Your task to perform on an android device: What's the weather going to be this weekend? Image 0: 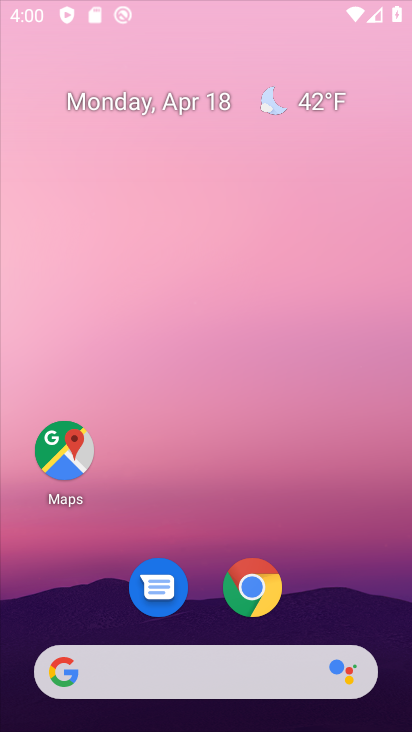
Step 0: click (226, 134)
Your task to perform on an android device: What's the weather going to be this weekend? Image 1: 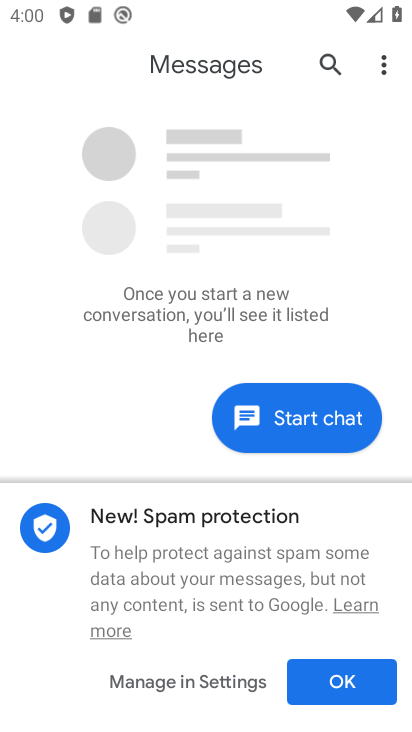
Step 1: press back button
Your task to perform on an android device: What's the weather going to be this weekend? Image 2: 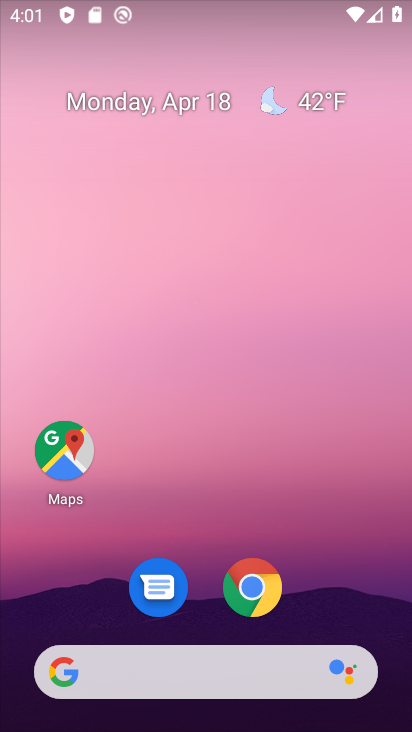
Step 2: drag from (158, 314) to (373, 301)
Your task to perform on an android device: What's the weather going to be this weekend? Image 3: 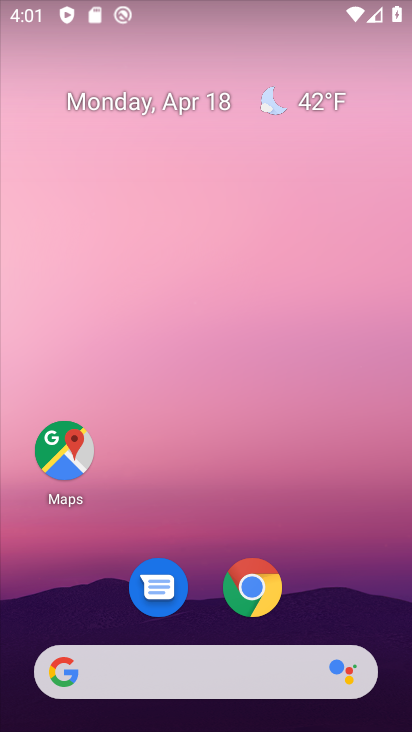
Step 3: drag from (41, 343) to (388, 315)
Your task to perform on an android device: What's the weather going to be this weekend? Image 4: 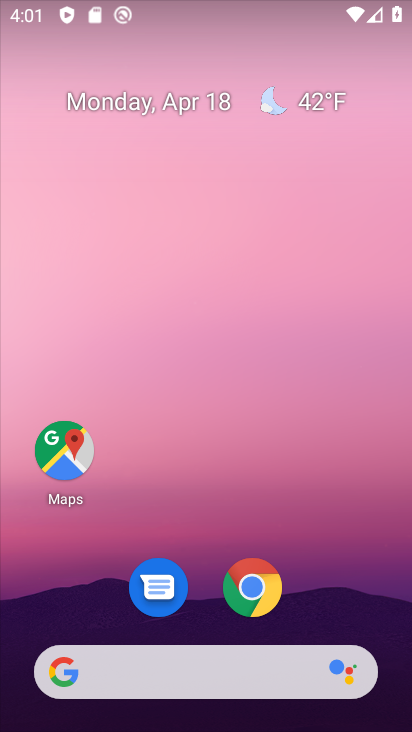
Step 4: drag from (23, 341) to (410, 321)
Your task to perform on an android device: What's the weather going to be this weekend? Image 5: 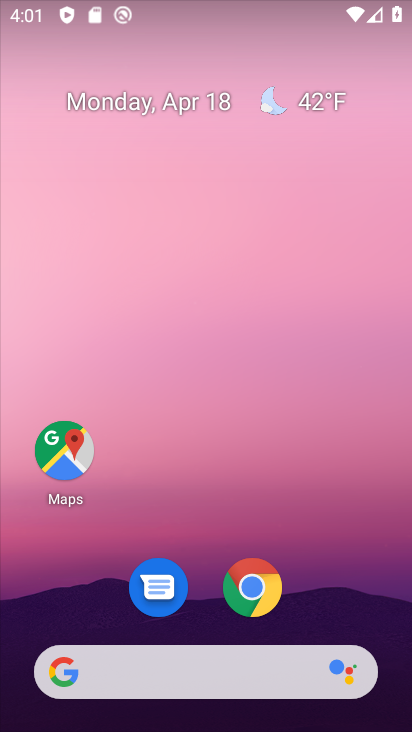
Step 5: drag from (62, 347) to (411, 322)
Your task to perform on an android device: What's the weather going to be this weekend? Image 6: 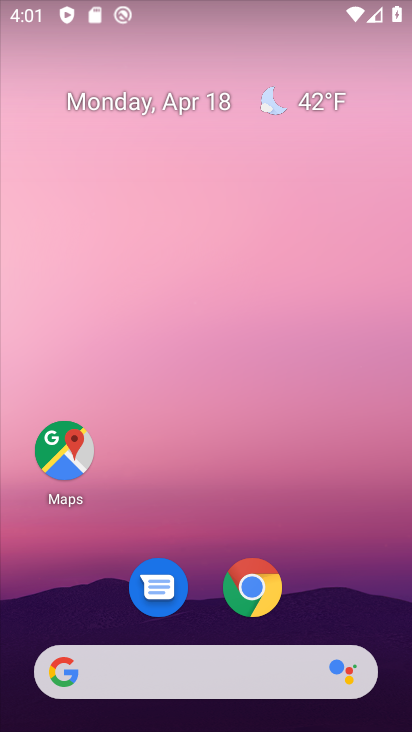
Step 6: drag from (6, 345) to (257, 303)
Your task to perform on an android device: What's the weather going to be this weekend? Image 7: 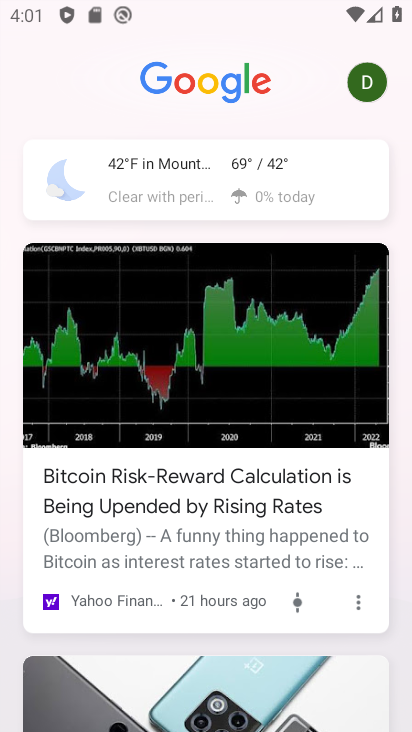
Step 7: click (310, 198)
Your task to perform on an android device: What's the weather going to be this weekend? Image 8: 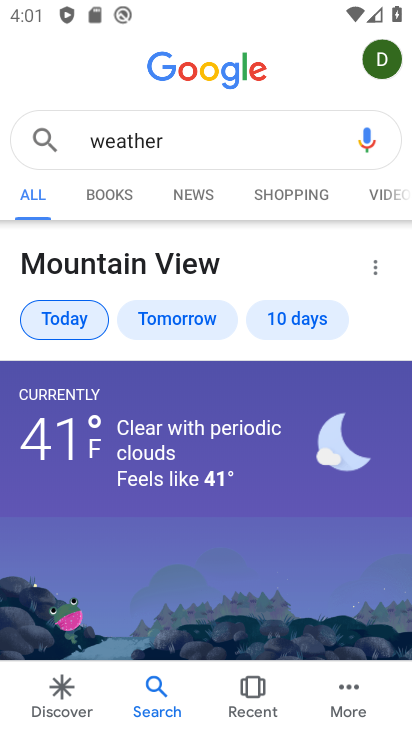
Step 8: click (298, 327)
Your task to perform on an android device: What's the weather going to be this weekend? Image 9: 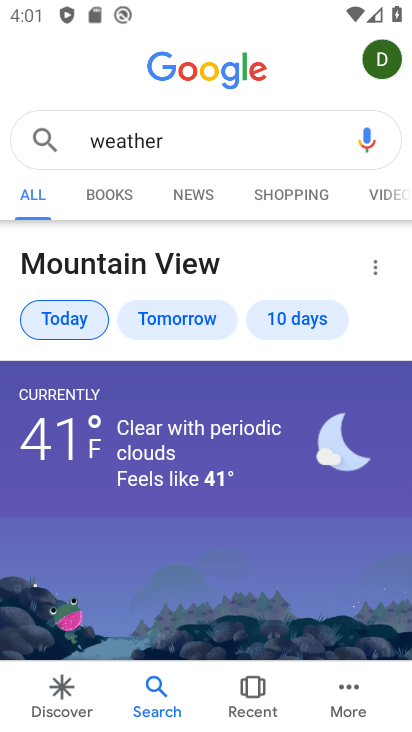
Step 9: click (334, 325)
Your task to perform on an android device: What's the weather going to be this weekend? Image 10: 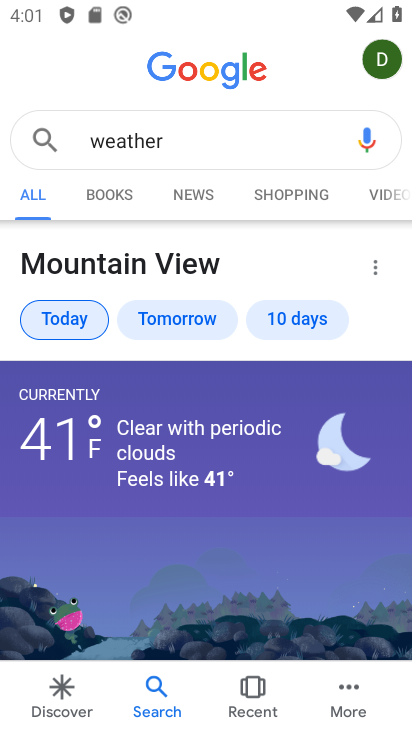
Step 10: drag from (250, 606) to (304, 403)
Your task to perform on an android device: What's the weather going to be this weekend? Image 11: 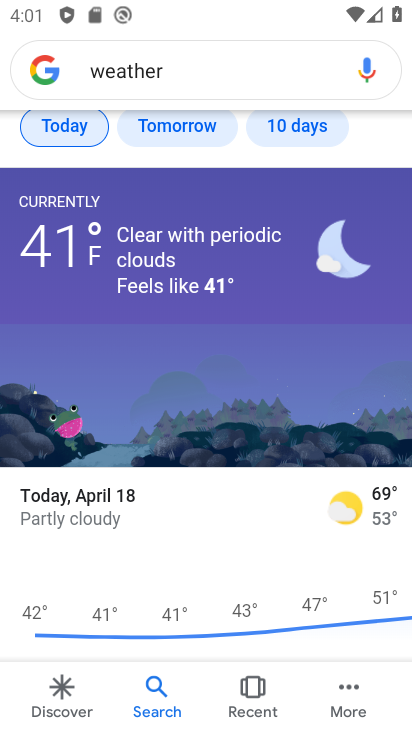
Step 11: click (300, 141)
Your task to perform on an android device: What's the weather going to be this weekend? Image 12: 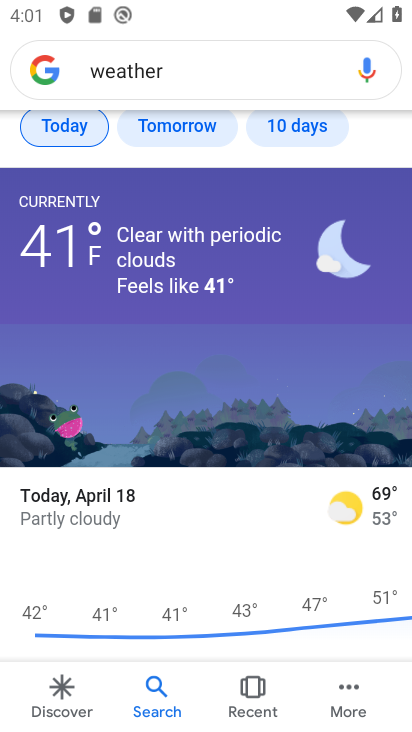
Step 12: click (300, 141)
Your task to perform on an android device: What's the weather going to be this weekend? Image 13: 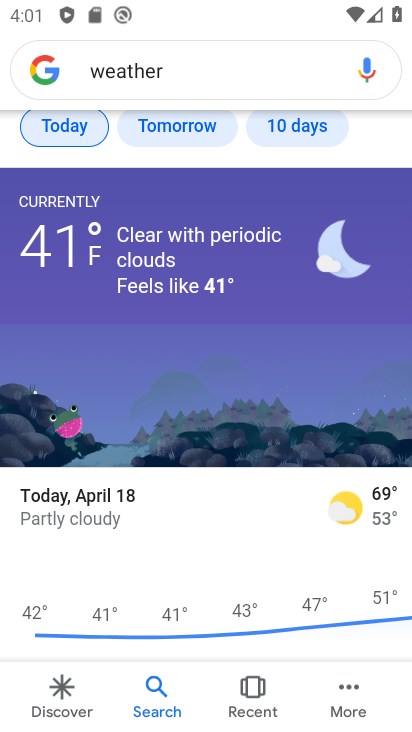
Step 13: click (280, 139)
Your task to perform on an android device: What's the weather going to be this weekend? Image 14: 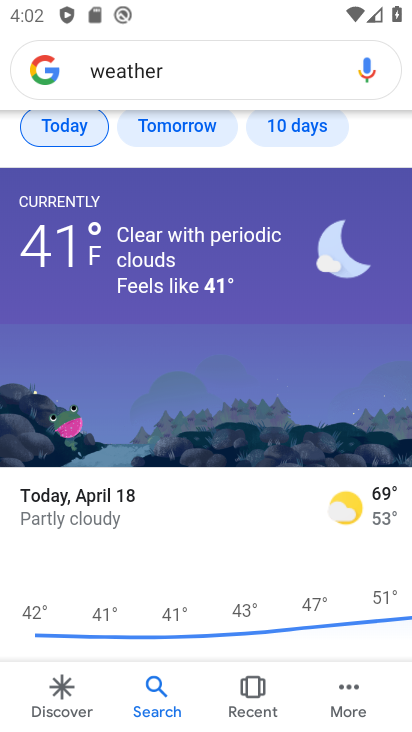
Step 14: click (307, 135)
Your task to perform on an android device: What's the weather going to be this weekend? Image 15: 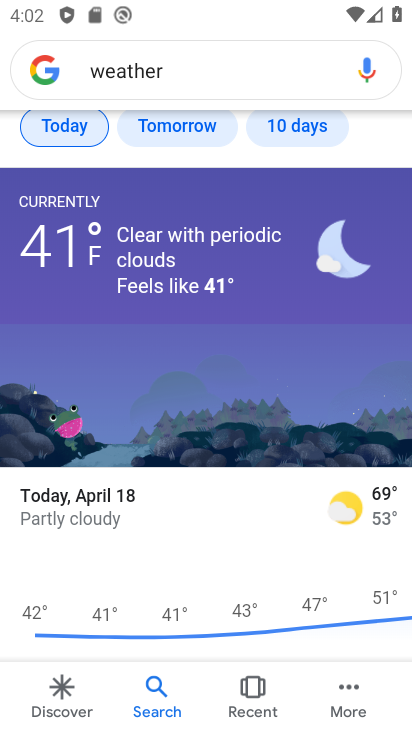
Step 15: click (292, 128)
Your task to perform on an android device: What's the weather going to be this weekend? Image 16: 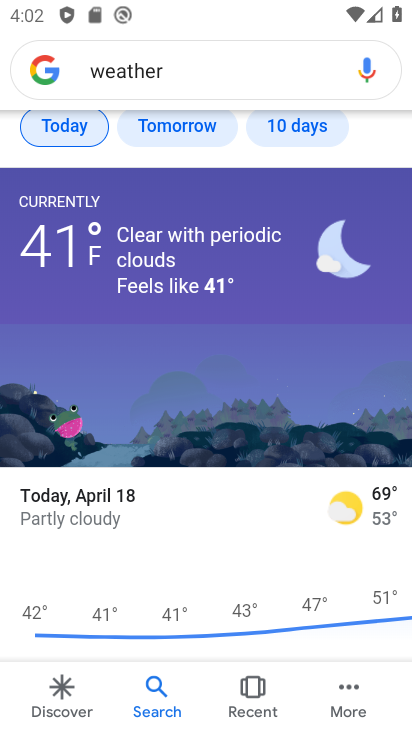
Step 16: click (292, 128)
Your task to perform on an android device: What's the weather going to be this weekend? Image 17: 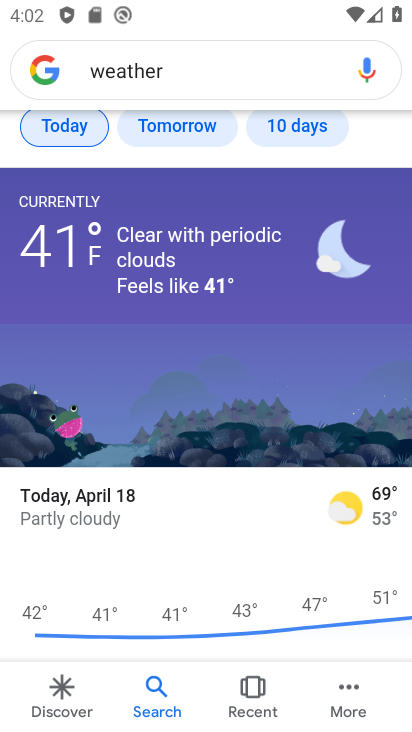
Step 17: click (292, 128)
Your task to perform on an android device: What's the weather going to be this weekend? Image 18: 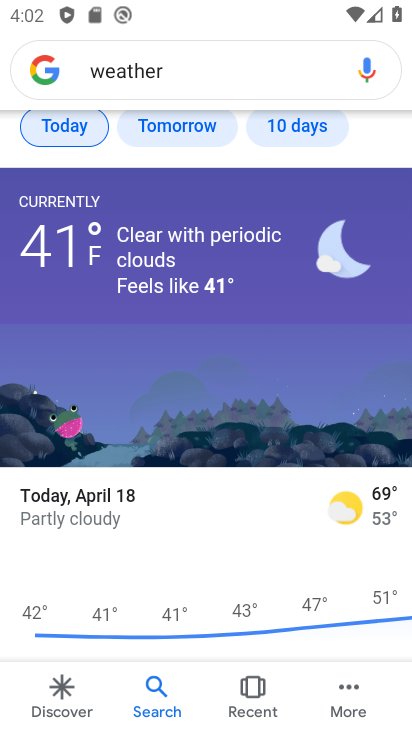
Step 18: click (292, 128)
Your task to perform on an android device: What's the weather going to be this weekend? Image 19: 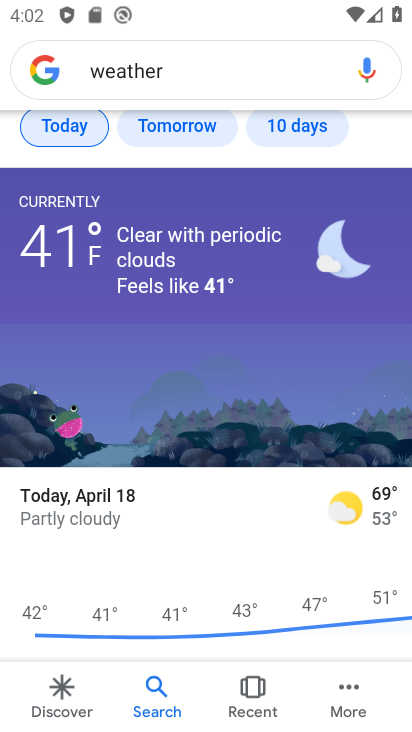
Step 19: click (298, 143)
Your task to perform on an android device: What's the weather going to be this weekend? Image 20: 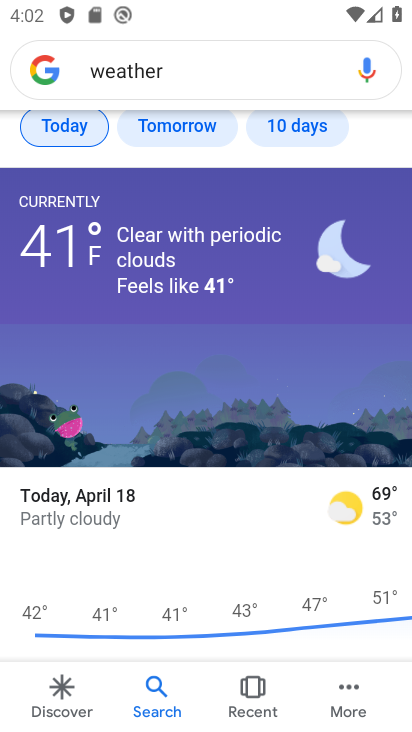
Step 20: drag from (237, 457) to (282, 249)
Your task to perform on an android device: What's the weather going to be this weekend? Image 21: 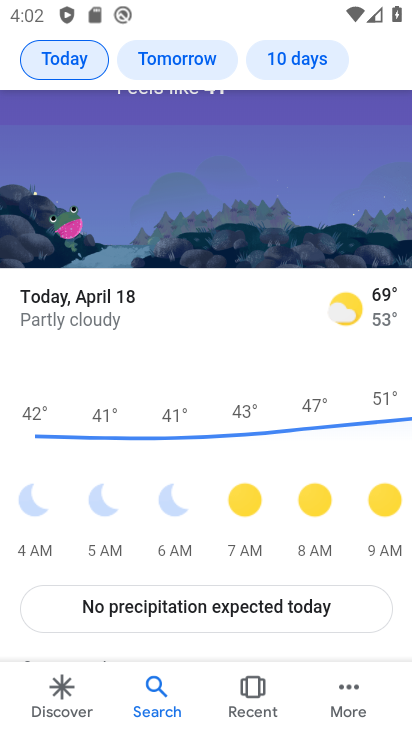
Step 21: click (287, 60)
Your task to perform on an android device: What's the weather going to be this weekend? Image 22: 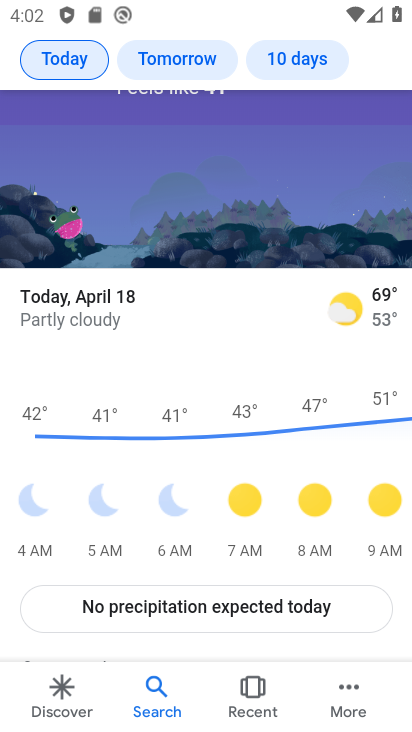
Step 22: click (301, 68)
Your task to perform on an android device: What's the weather going to be this weekend? Image 23: 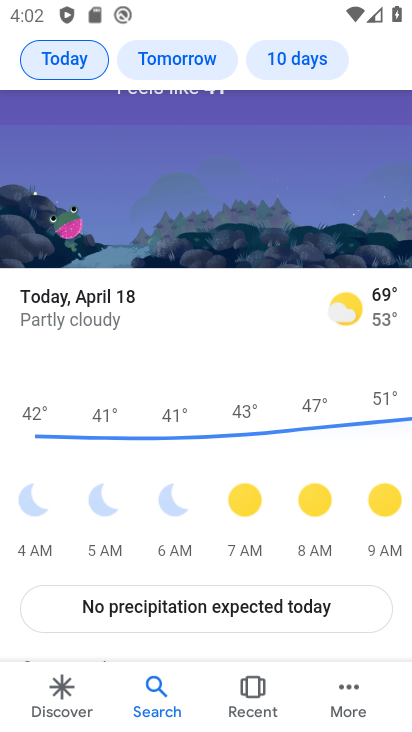
Step 23: click (289, 174)
Your task to perform on an android device: What's the weather going to be this weekend? Image 24: 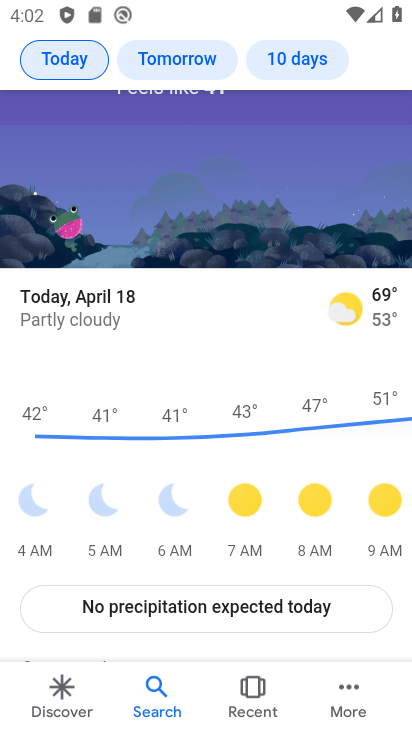
Step 24: click (324, 289)
Your task to perform on an android device: What's the weather going to be this weekend? Image 25: 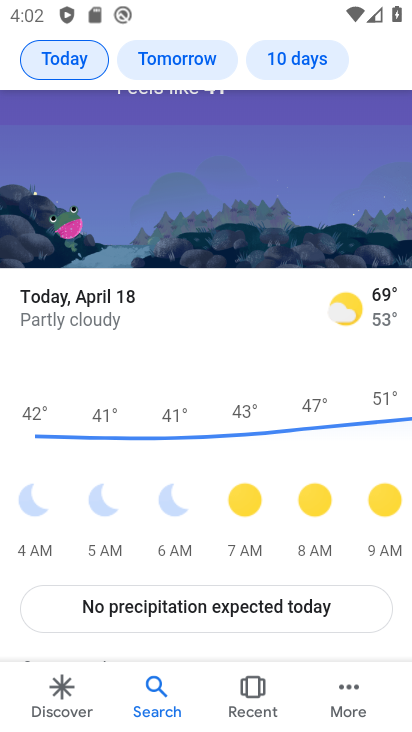
Step 25: click (324, 289)
Your task to perform on an android device: What's the weather going to be this weekend? Image 26: 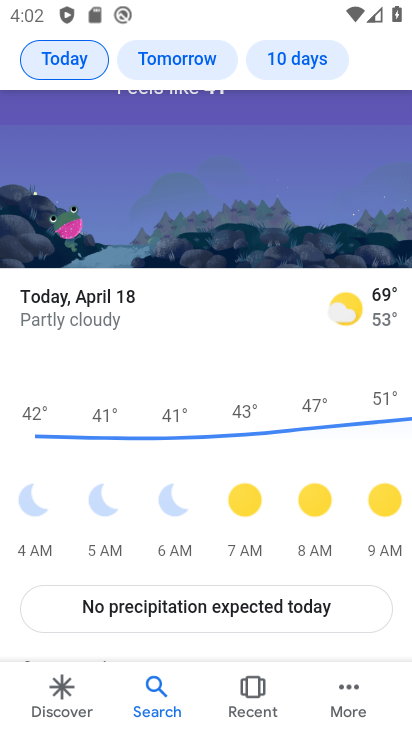
Step 26: click (317, 374)
Your task to perform on an android device: What's the weather going to be this weekend? Image 27: 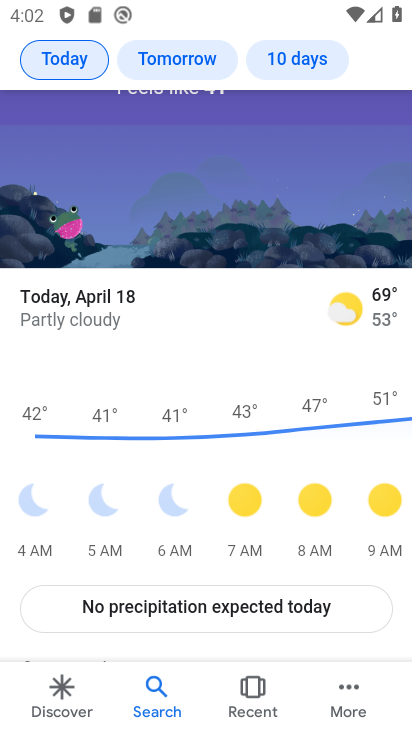
Step 27: click (317, 374)
Your task to perform on an android device: What's the weather going to be this weekend? Image 28: 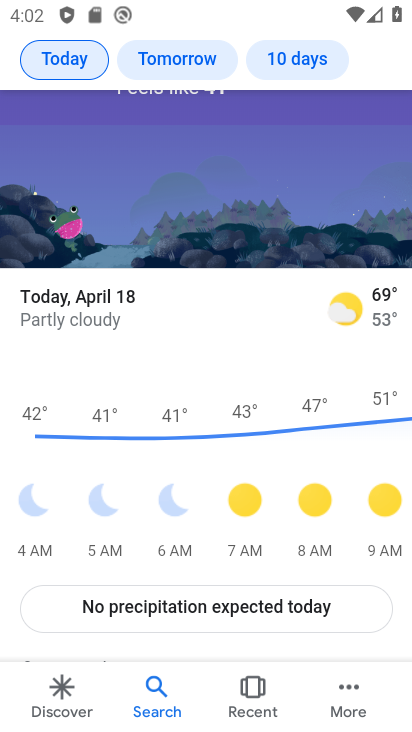
Step 28: click (301, 59)
Your task to perform on an android device: What's the weather going to be this weekend? Image 29: 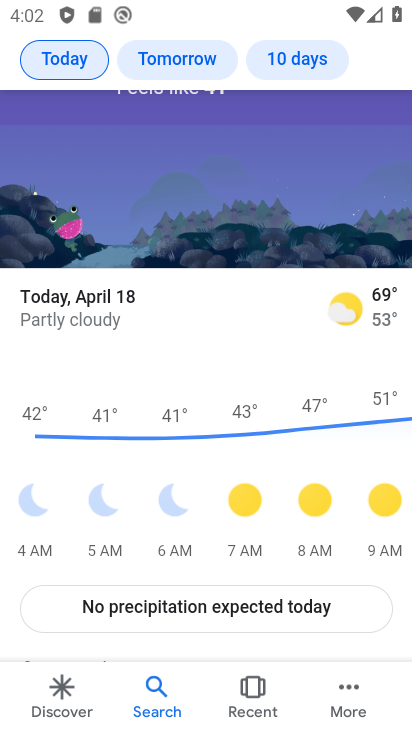
Step 29: click (300, 60)
Your task to perform on an android device: What's the weather going to be this weekend? Image 30: 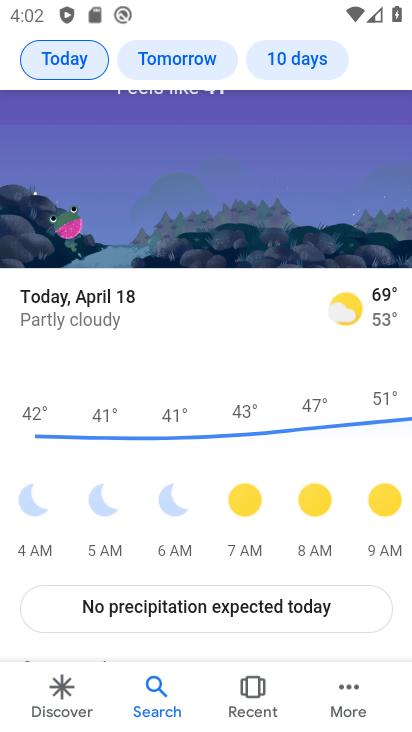
Step 30: click (300, 60)
Your task to perform on an android device: What's the weather going to be this weekend? Image 31: 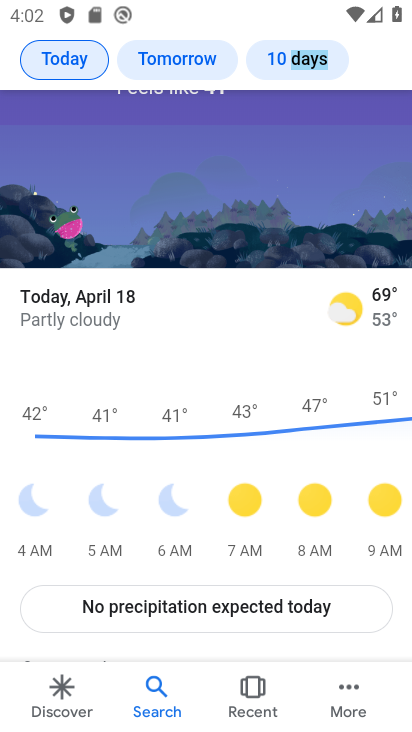
Step 31: click (290, 621)
Your task to perform on an android device: What's the weather going to be this weekend? Image 32: 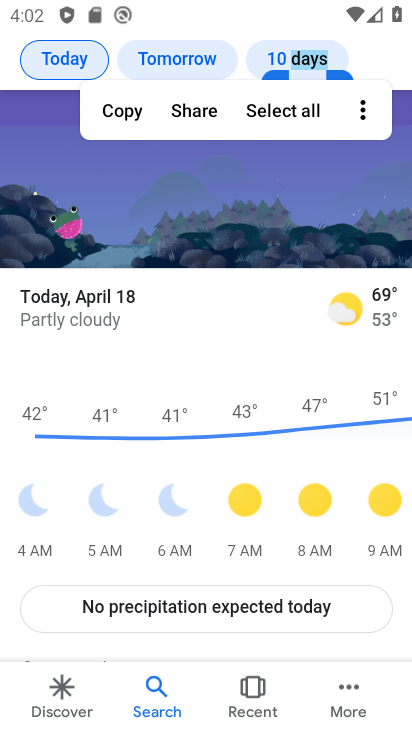
Step 32: drag from (268, 603) to (398, 217)
Your task to perform on an android device: What's the weather going to be this weekend? Image 33: 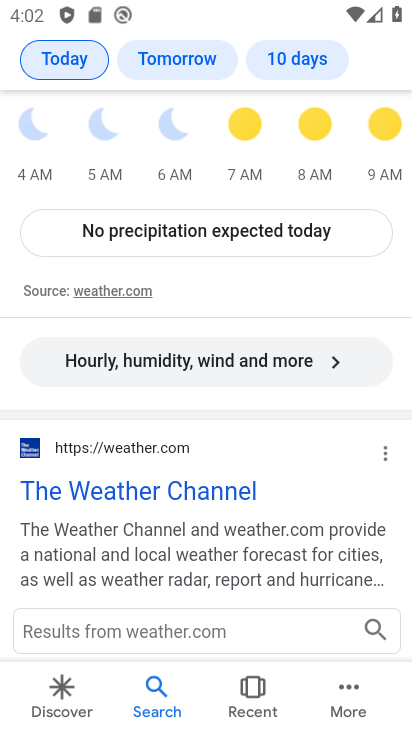
Step 33: click (350, 377)
Your task to perform on an android device: What's the weather going to be this weekend? Image 34: 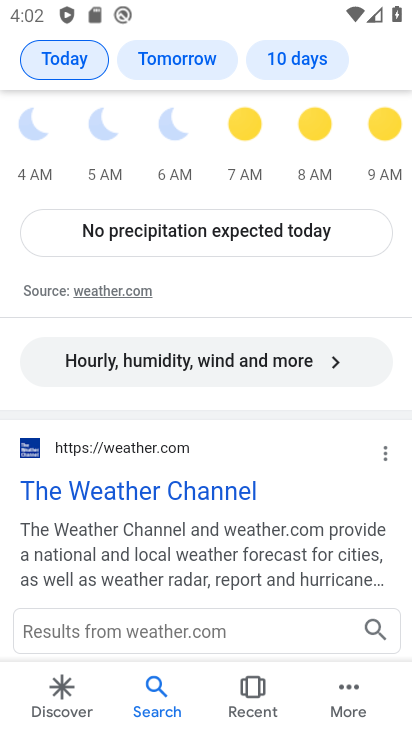
Step 34: click (350, 368)
Your task to perform on an android device: What's the weather going to be this weekend? Image 35: 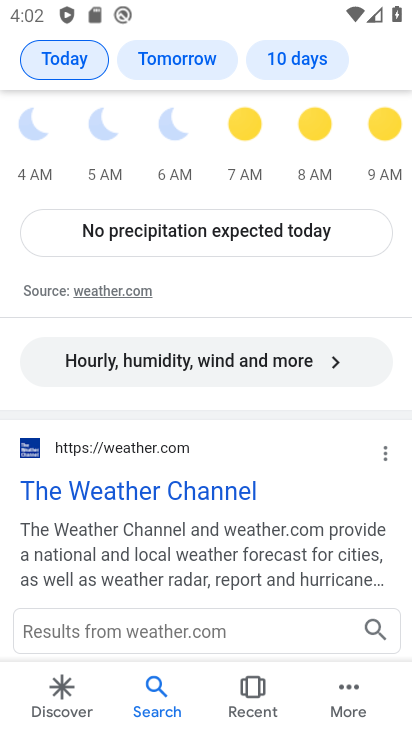
Step 35: task complete